Your task to perform on an android device: Add "logitech g pro" to the cart on ebay.com Image 0: 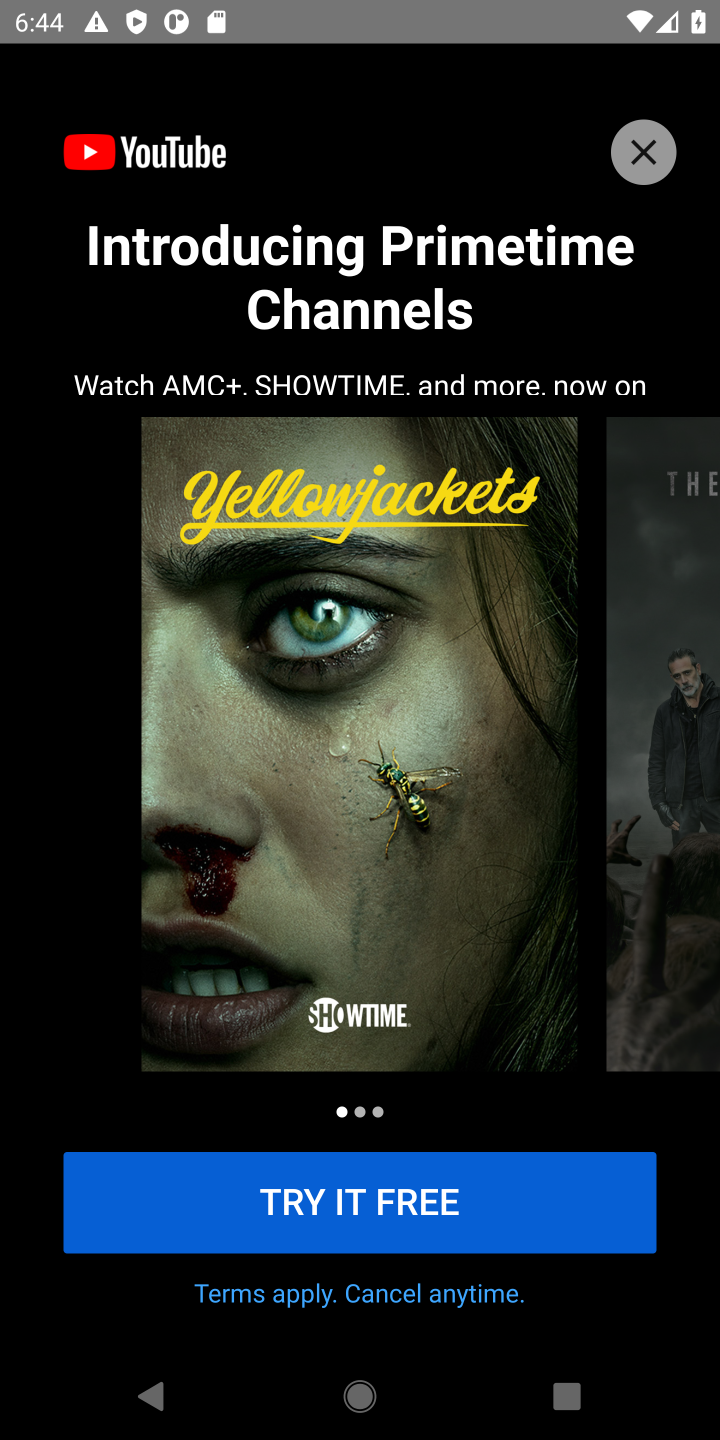
Step 0: press home button
Your task to perform on an android device: Add "logitech g pro" to the cart on ebay.com Image 1: 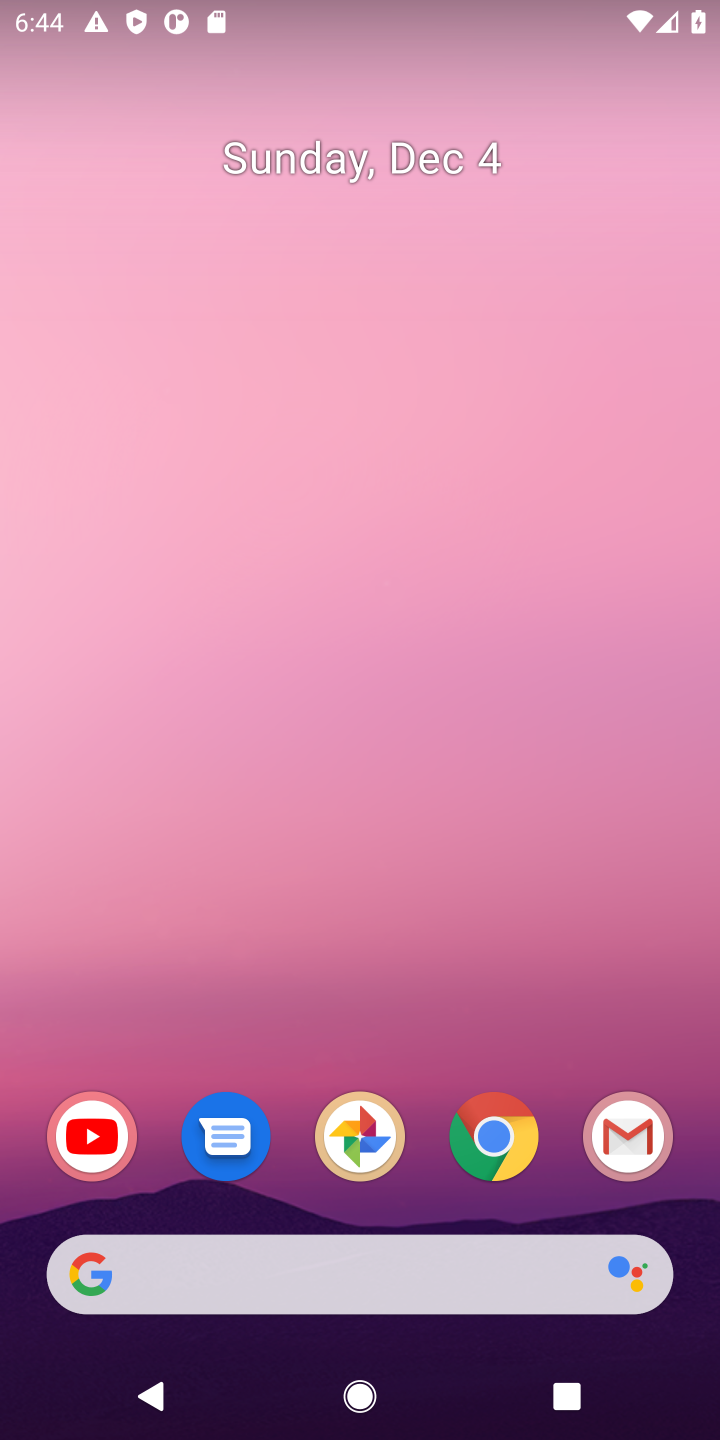
Step 1: click (489, 1141)
Your task to perform on an android device: Add "logitech g pro" to the cart on ebay.com Image 2: 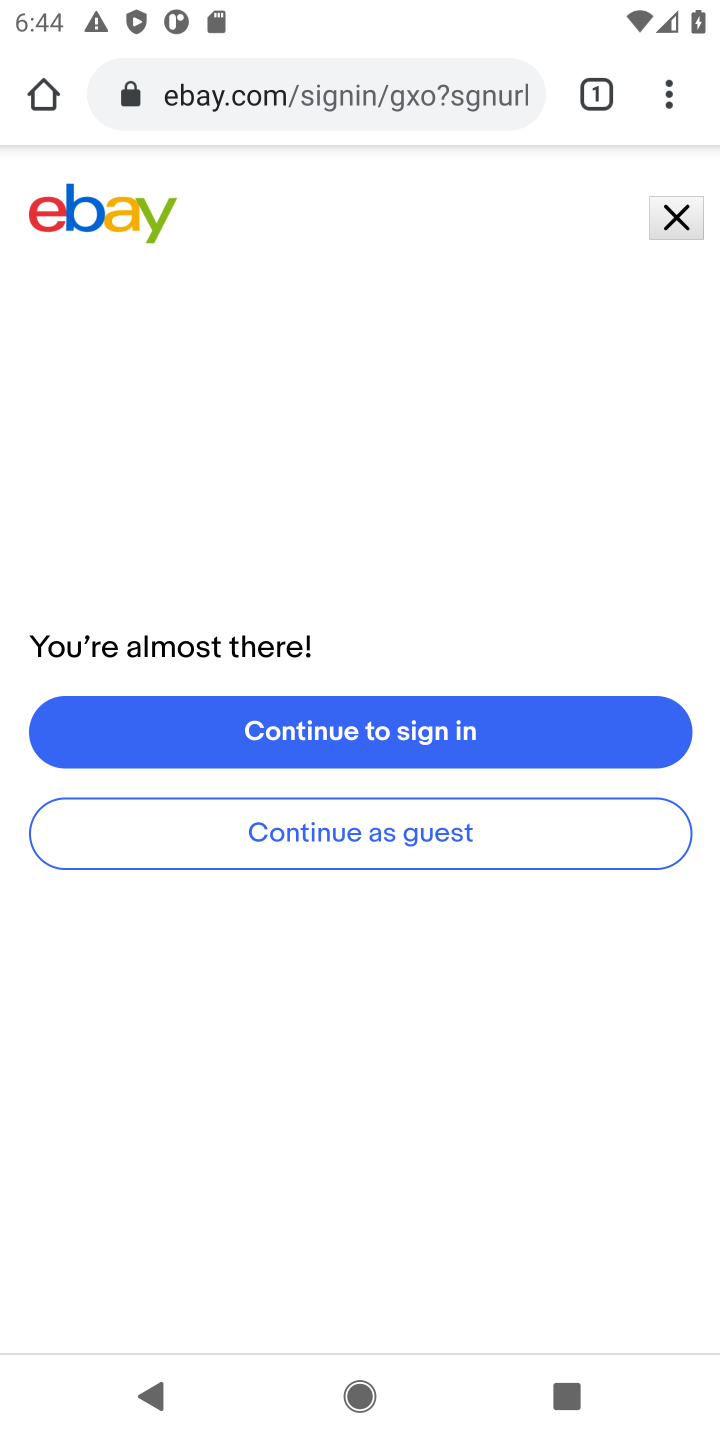
Step 2: click (694, 204)
Your task to perform on an android device: Add "logitech g pro" to the cart on ebay.com Image 3: 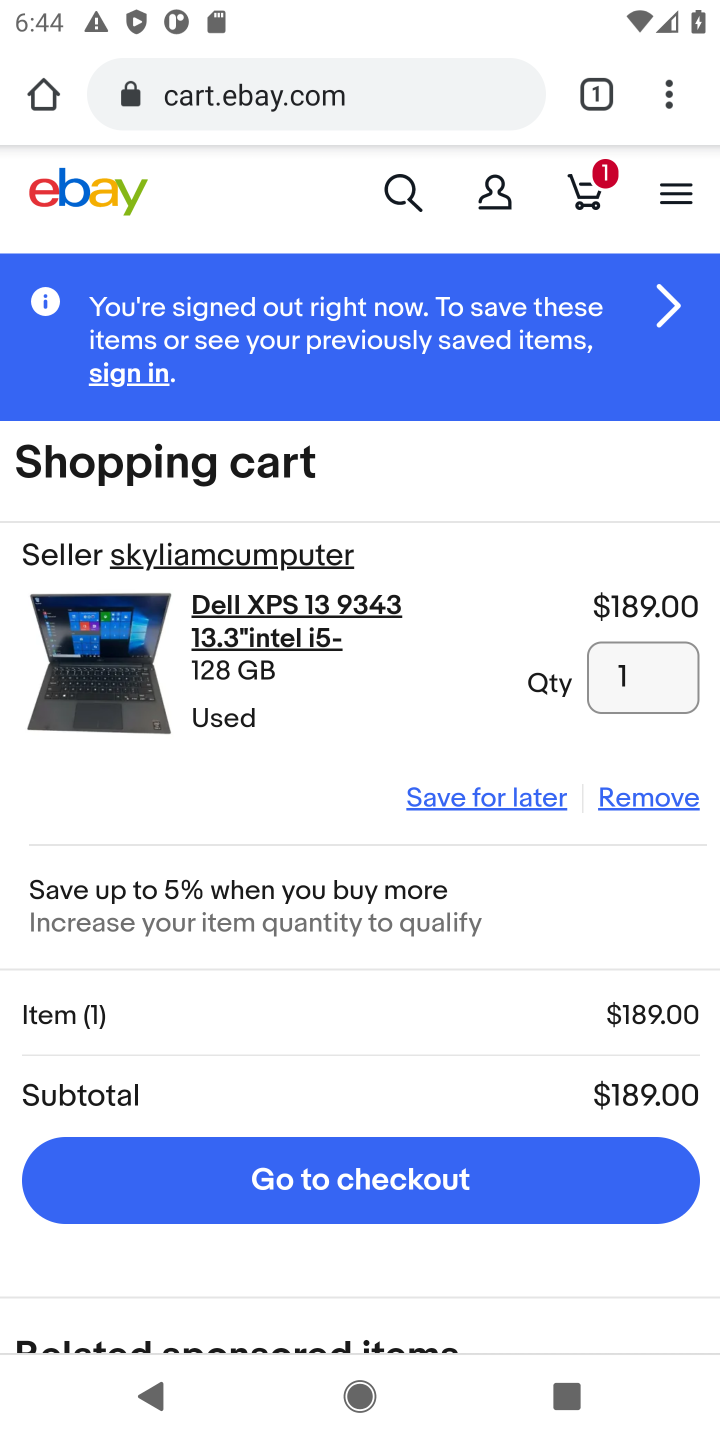
Step 3: click (413, 178)
Your task to perform on an android device: Add "logitech g pro" to the cart on ebay.com Image 4: 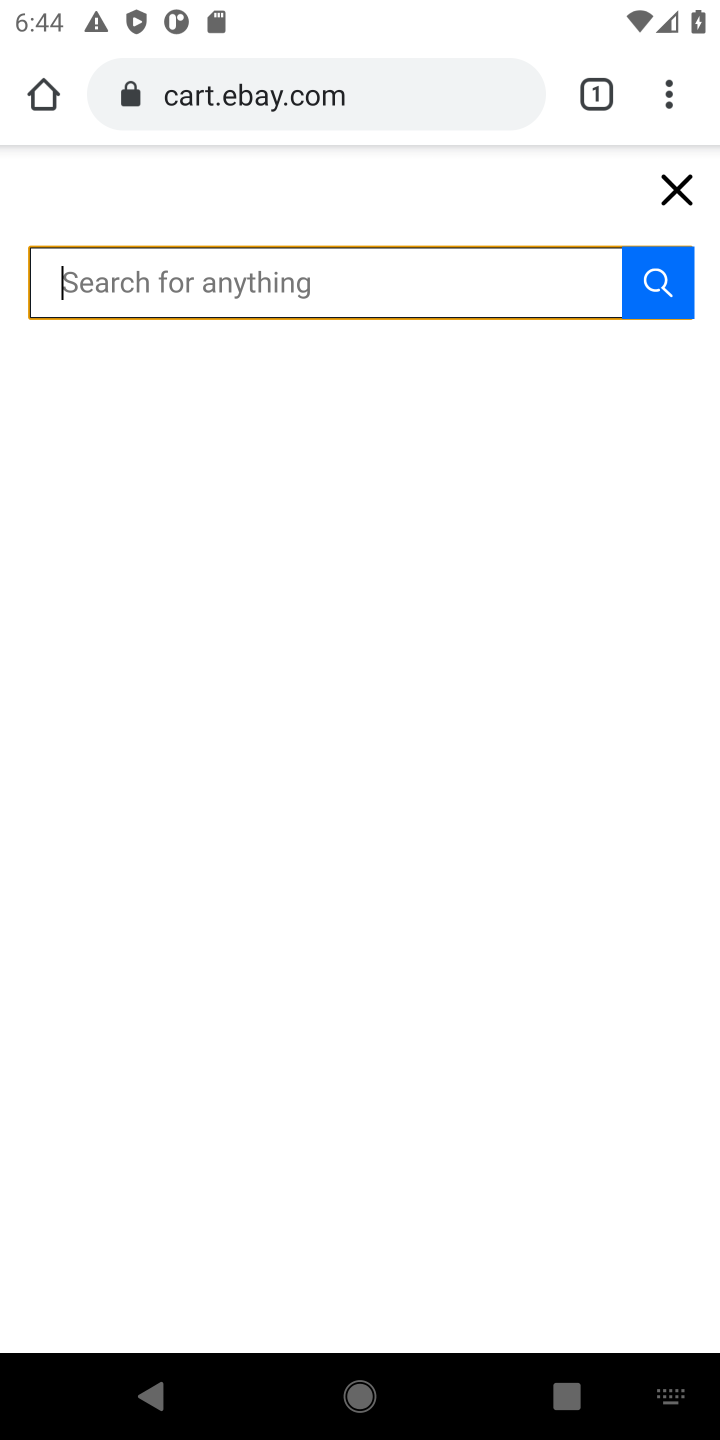
Step 4: type "logitech g pro"
Your task to perform on an android device: Add "logitech g pro" to the cart on ebay.com Image 5: 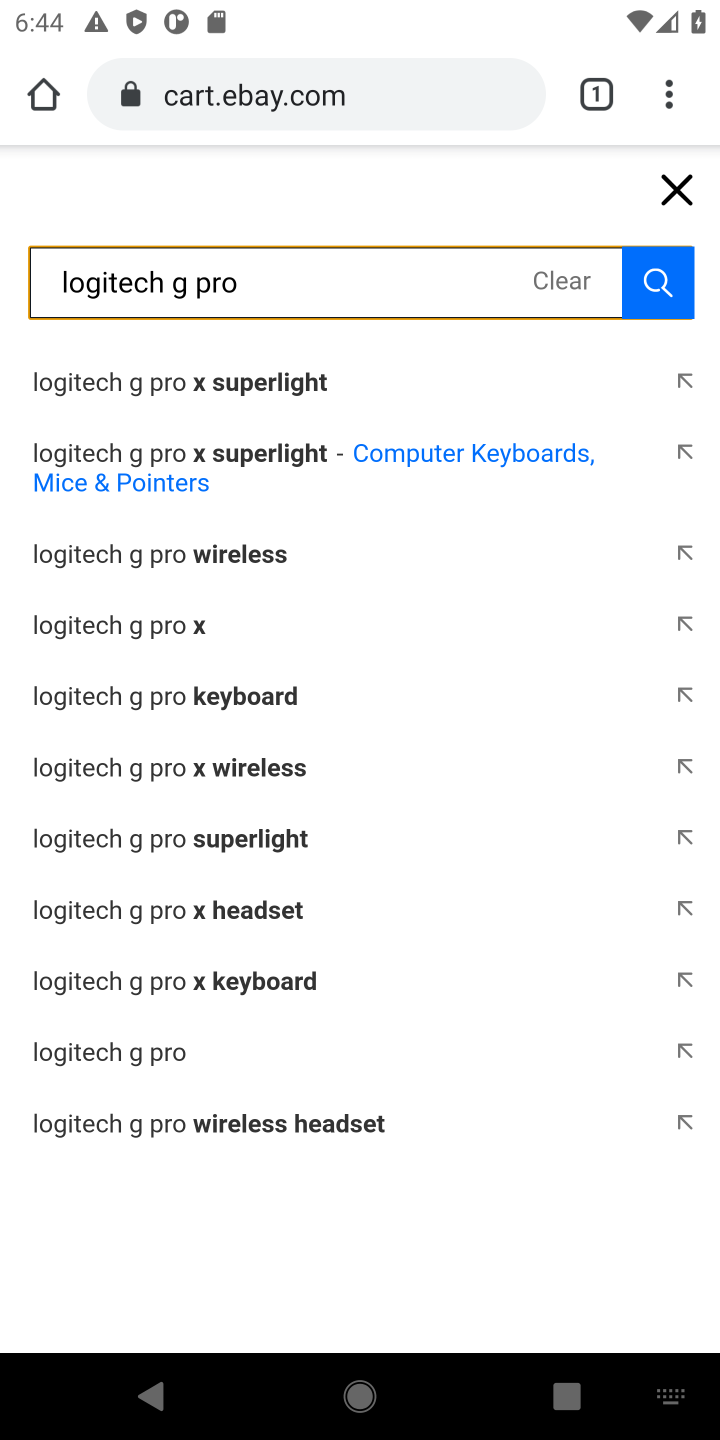
Step 5: click (140, 1058)
Your task to perform on an android device: Add "logitech g pro" to the cart on ebay.com Image 6: 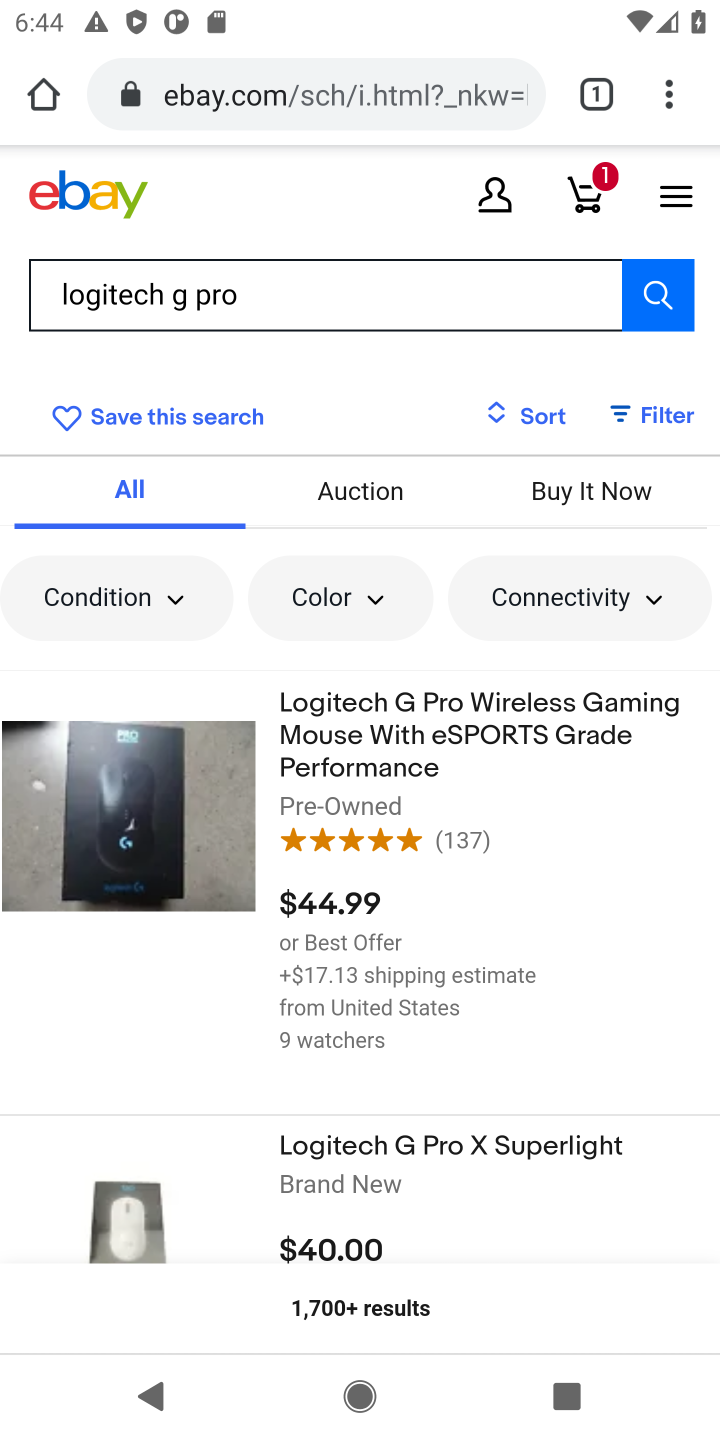
Step 6: click (323, 794)
Your task to perform on an android device: Add "logitech g pro" to the cart on ebay.com Image 7: 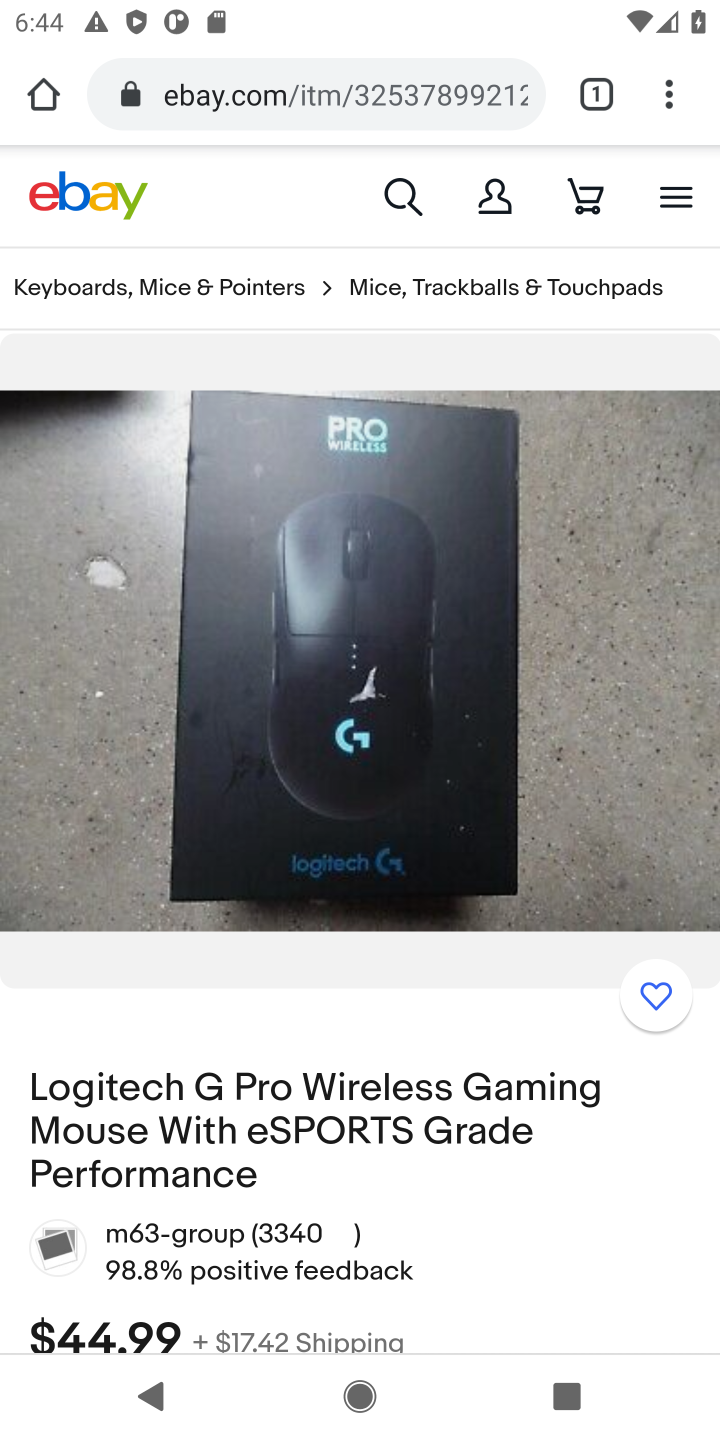
Step 7: drag from (509, 1210) to (512, 441)
Your task to perform on an android device: Add "logitech g pro" to the cart on ebay.com Image 8: 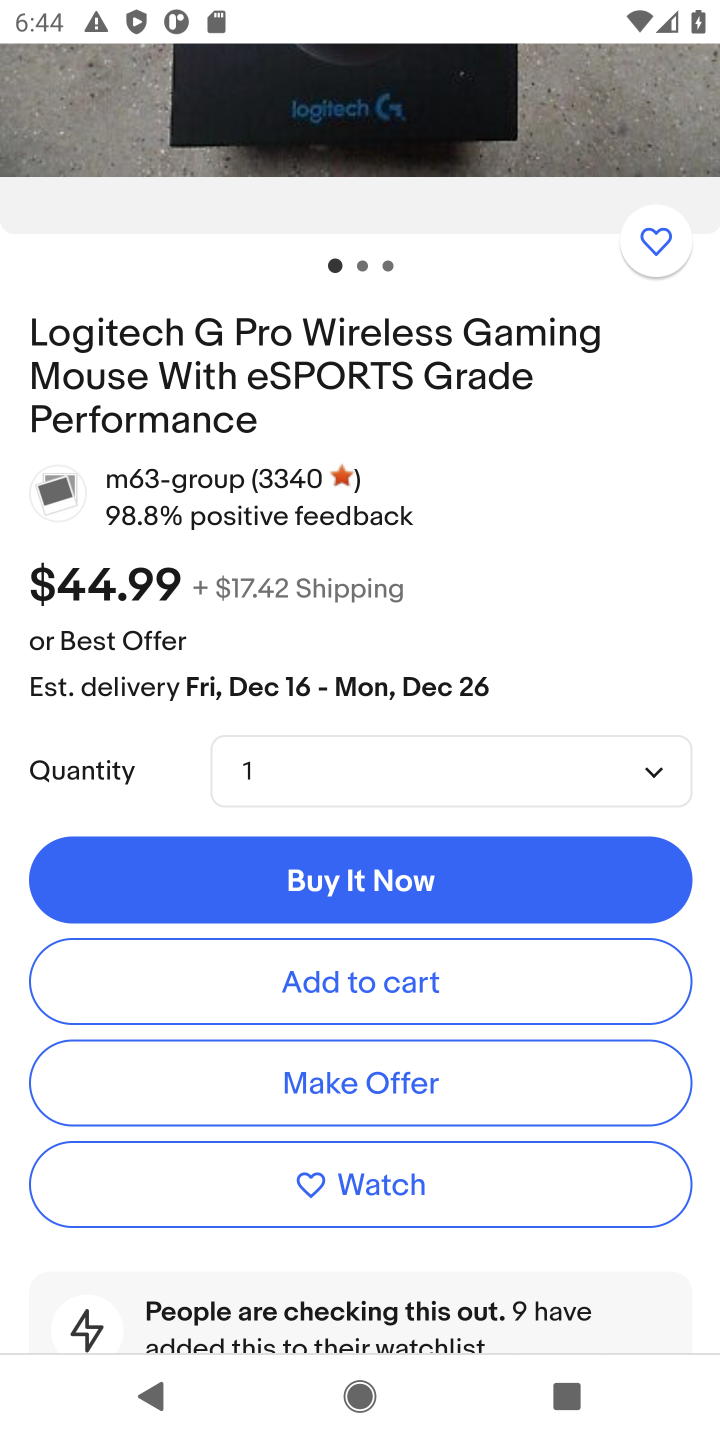
Step 8: click (286, 977)
Your task to perform on an android device: Add "logitech g pro" to the cart on ebay.com Image 9: 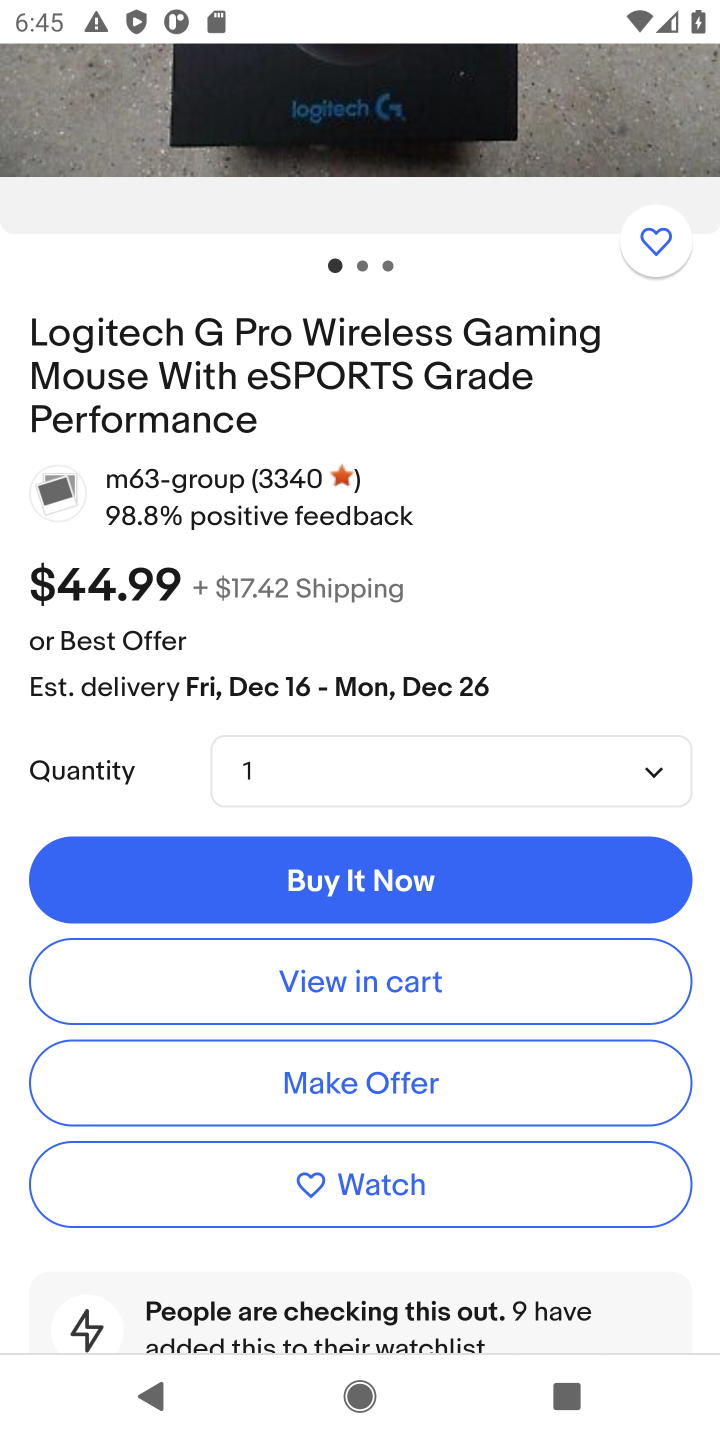
Step 9: task complete